Your task to perform on an android device: Search for Italian restaurants on Maps Image 0: 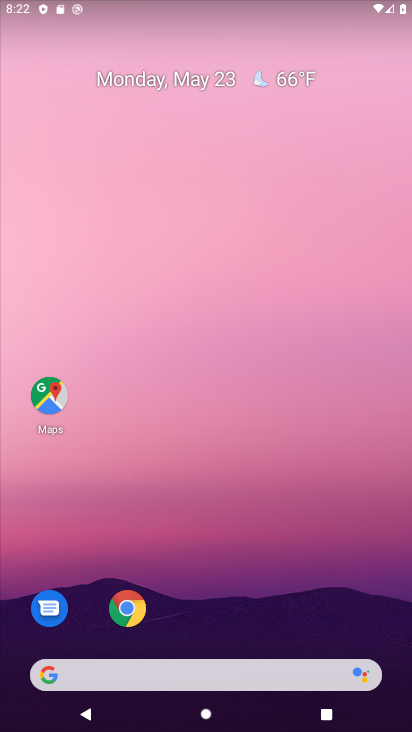
Step 0: drag from (229, 725) to (232, 304)
Your task to perform on an android device: Search for Italian restaurants on Maps Image 1: 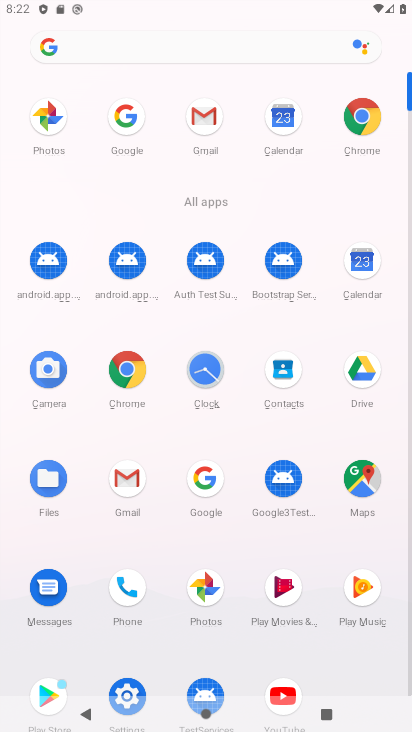
Step 1: click (358, 483)
Your task to perform on an android device: Search for Italian restaurants on Maps Image 2: 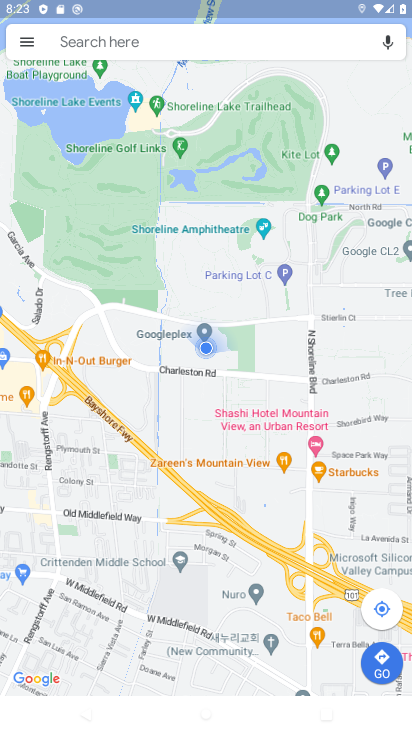
Step 2: click (197, 45)
Your task to perform on an android device: Search for Italian restaurants on Maps Image 3: 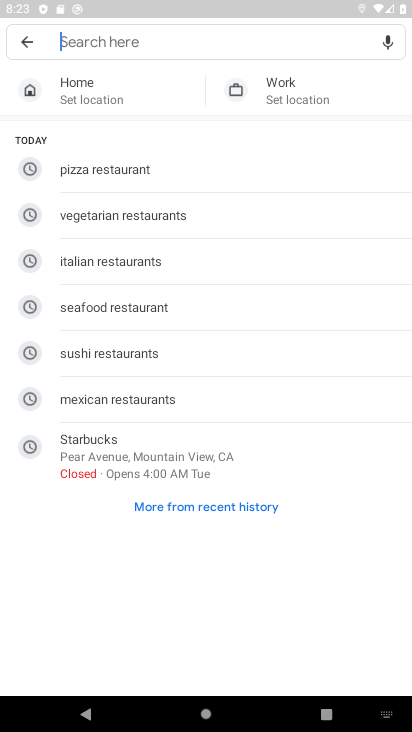
Step 3: type "Italian restaurants"
Your task to perform on an android device: Search for Italian restaurants on Maps Image 4: 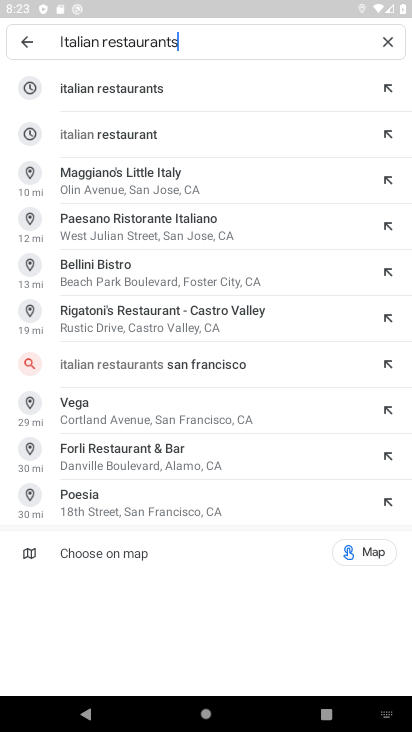
Step 4: click (100, 90)
Your task to perform on an android device: Search for Italian restaurants on Maps Image 5: 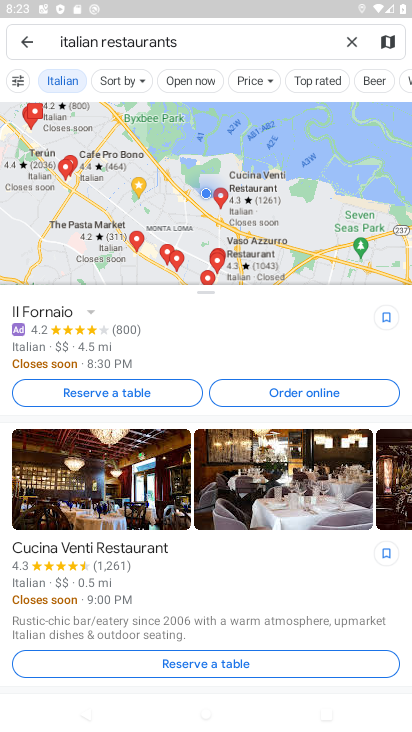
Step 5: task complete